Your task to perform on an android device: make emails show in primary in the gmail app Image 0: 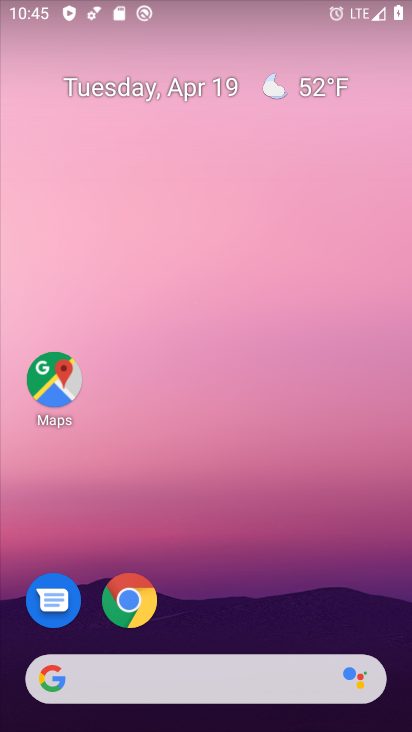
Step 0: drag from (148, 8) to (308, 88)
Your task to perform on an android device: make emails show in primary in the gmail app Image 1: 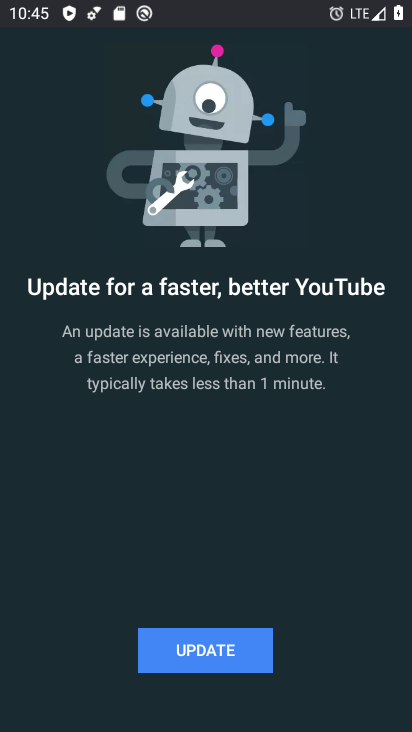
Step 1: press home button
Your task to perform on an android device: make emails show in primary in the gmail app Image 2: 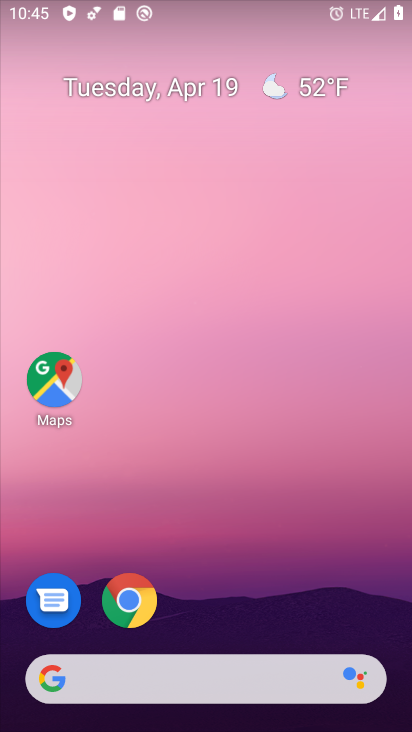
Step 2: drag from (205, 647) to (282, 9)
Your task to perform on an android device: make emails show in primary in the gmail app Image 3: 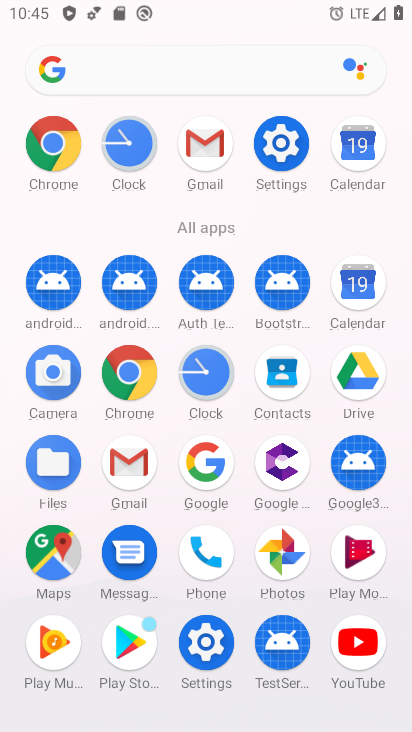
Step 3: click (122, 468)
Your task to perform on an android device: make emails show in primary in the gmail app Image 4: 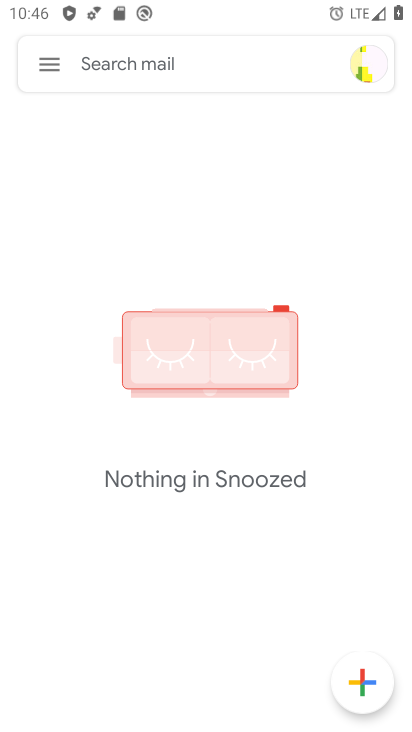
Step 4: click (40, 62)
Your task to perform on an android device: make emails show in primary in the gmail app Image 5: 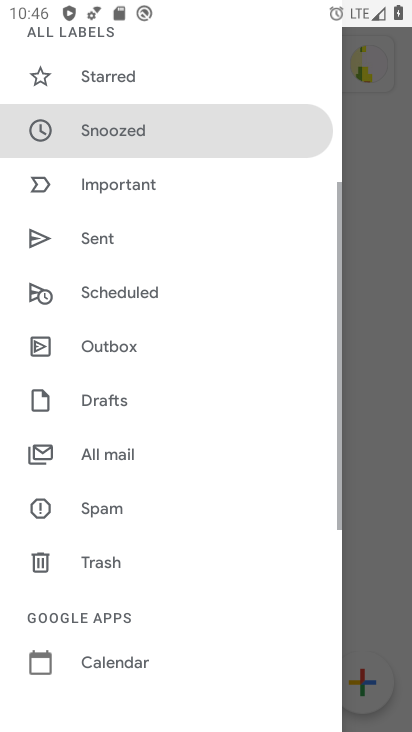
Step 5: drag from (138, 647) to (164, 67)
Your task to perform on an android device: make emails show in primary in the gmail app Image 6: 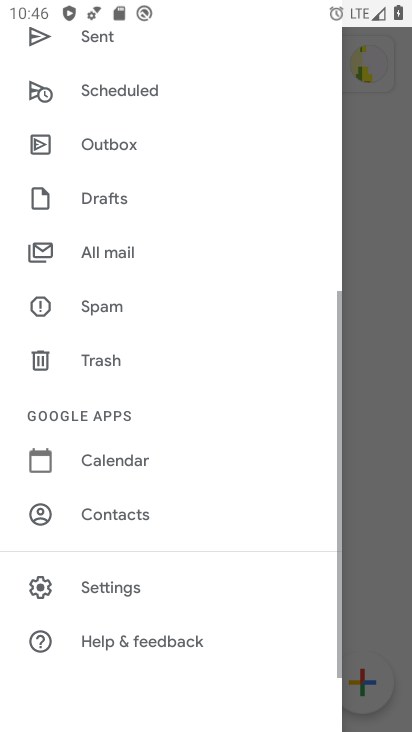
Step 6: click (155, 576)
Your task to perform on an android device: make emails show in primary in the gmail app Image 7: 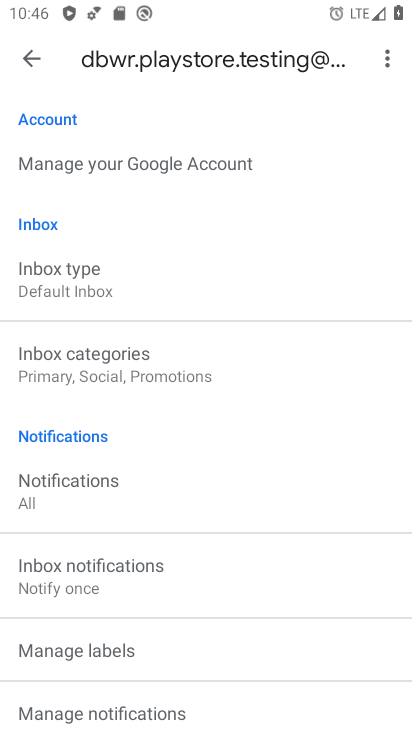
Step 7: click (64, 283)
Your task to perform on an android device: make emails show in primary in the gmail app Image 8: 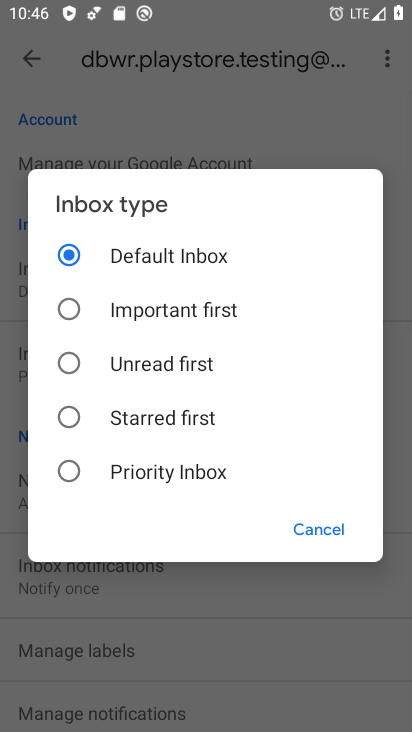
Step 8: task complete